Your task to perform on an android device: change text size in settings app Image 0: 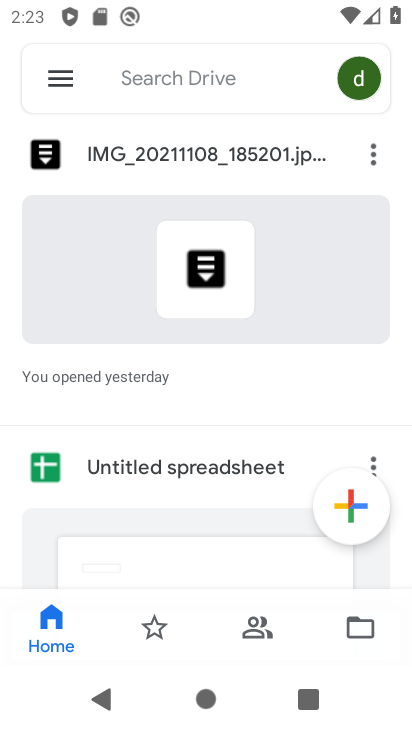
Step 0: press home button
Your task to perform on an android device: change text size in settings app Image 1: 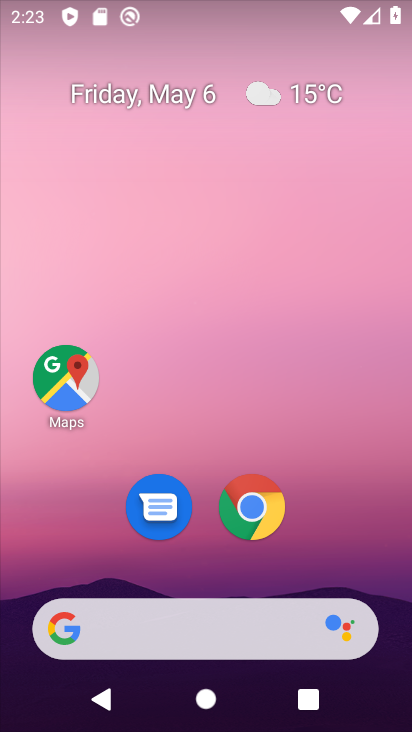
Step 1: drag from (395, 573) to (346, 124)
Your task to perform on an android device: change text size in settings app Image 2: 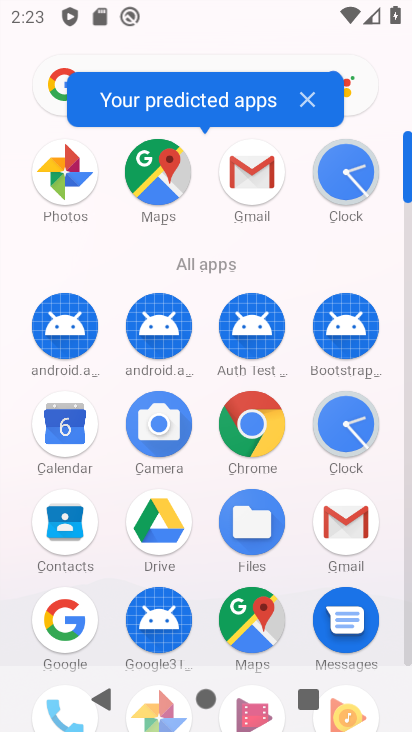
Step 2: drag from (200, 600) to (206, 179)
Your task to perform on an android device: change text size in settings app Image 3: 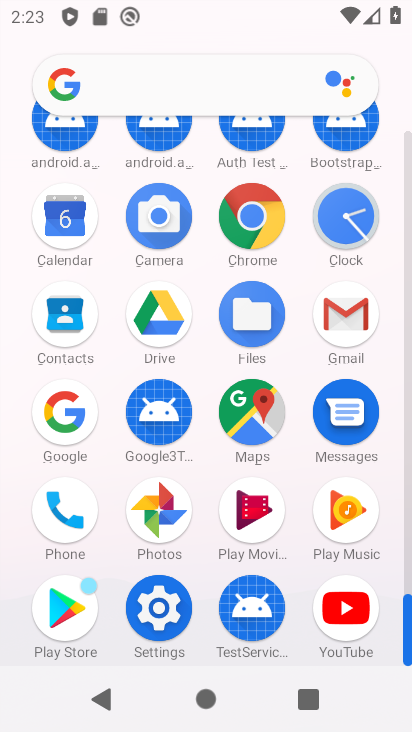
Step 3: click (166, 613)
Your task to perform on an android device: change text size in settings app Image 4: 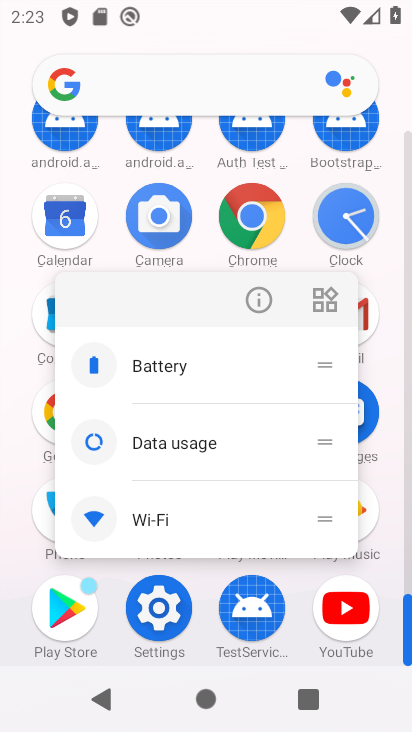
Step 4: click (163, 623)
Your task to perform on an android device: change text size in settings app Image 5: 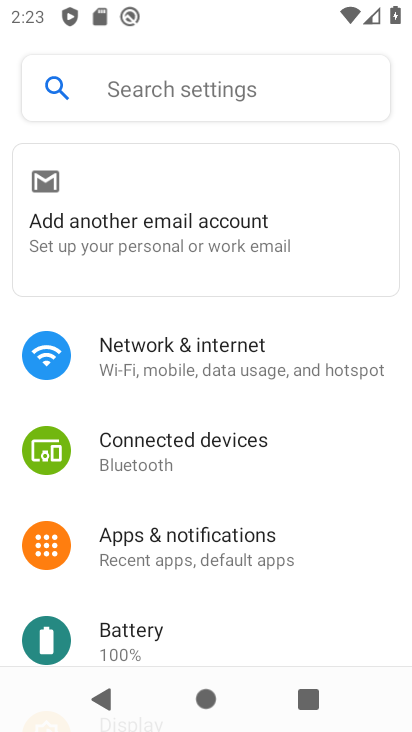
Step 5: drag from (317, 622) to (306, 276)
Your task to perform on an android device: change text size in settings app Image 6: 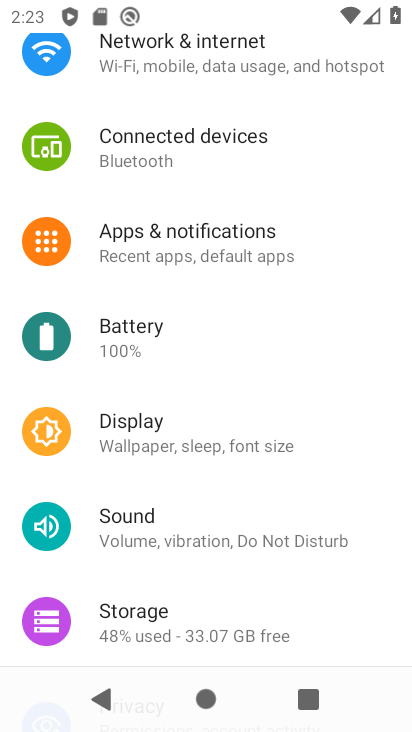
Step 6: drag from (304, 573) to (310, 336)
Your task to perform on an android device: change text size in settings app Image 7: 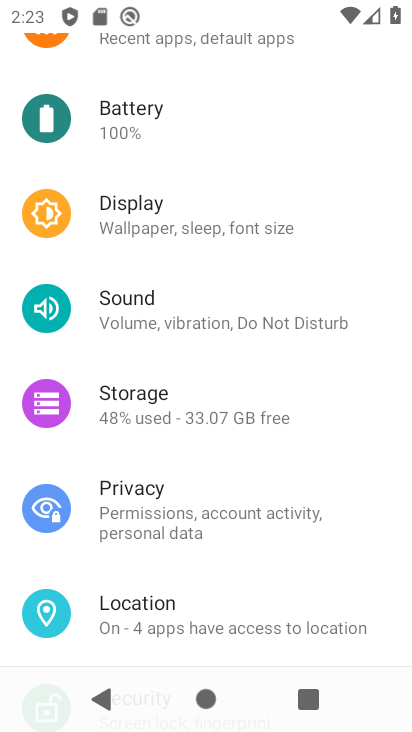
Step 7: click (191, 230)
Your task to perform on an android device: change text size in settings app Image 8: 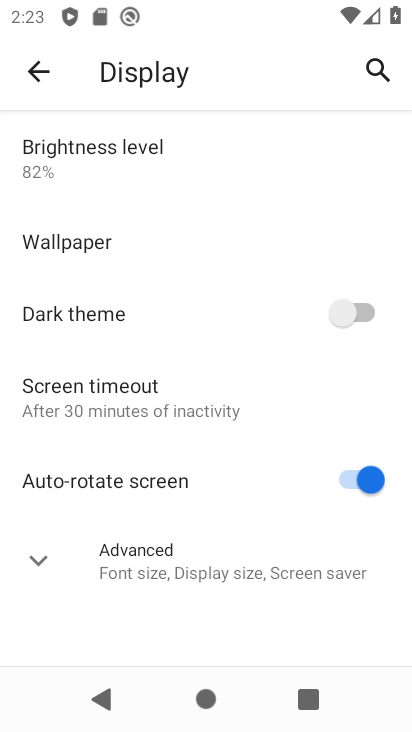
Step 8: click (38, 565)
Your task to perform on an android device: change text size in settings app Image 9: 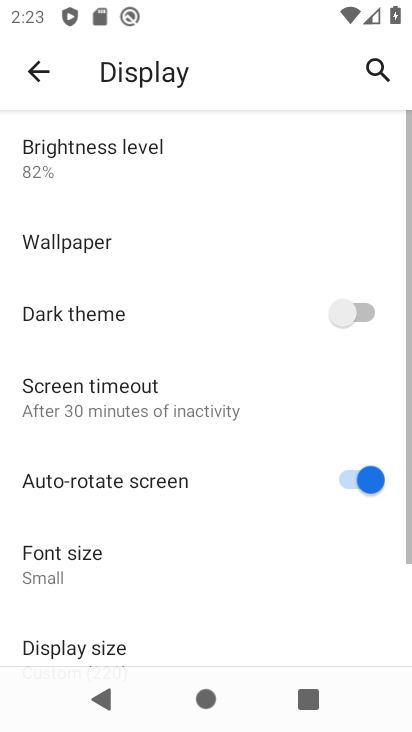
Step 9: drag from (138, 590) to (156, 256)
Your task to perform on an android device: change text size in settings app Image 10: 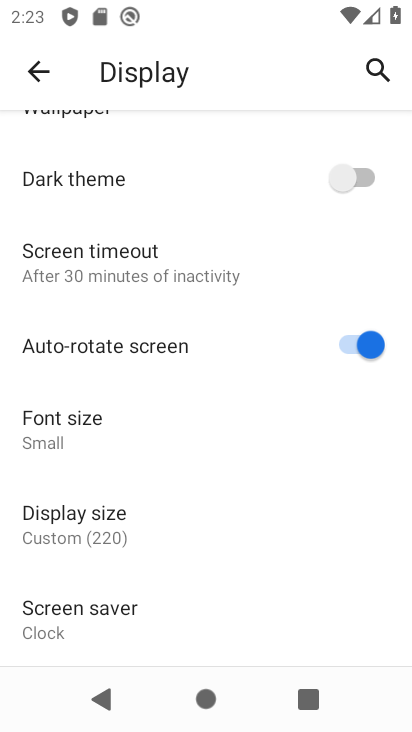
Step 10: click (81, 439)
Your task to perform on an android device: change text size in settings app Image 11: 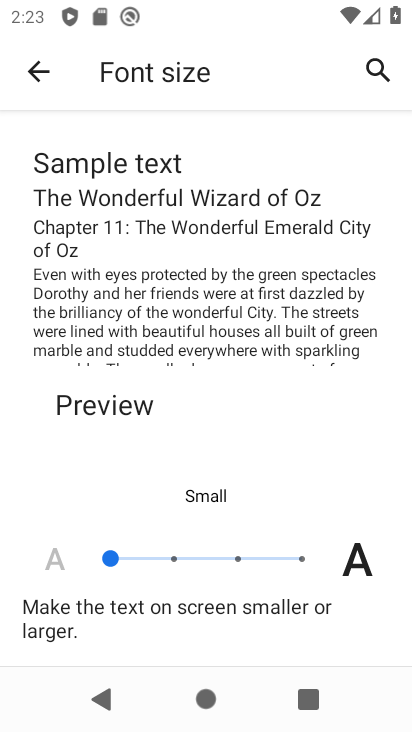
Step 11: click (173, 561)
Your task to perform on an android device: change text size in settings app Image 12: 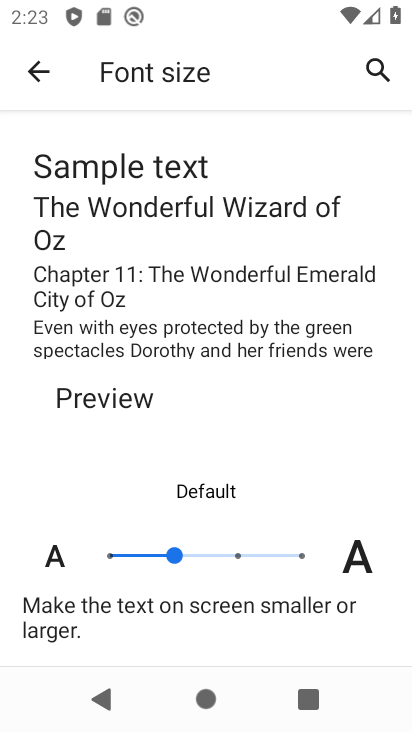
Step 12: task complete